Your task to perform on an android device: Open Google Maps and go to "Timeline" Image 0: 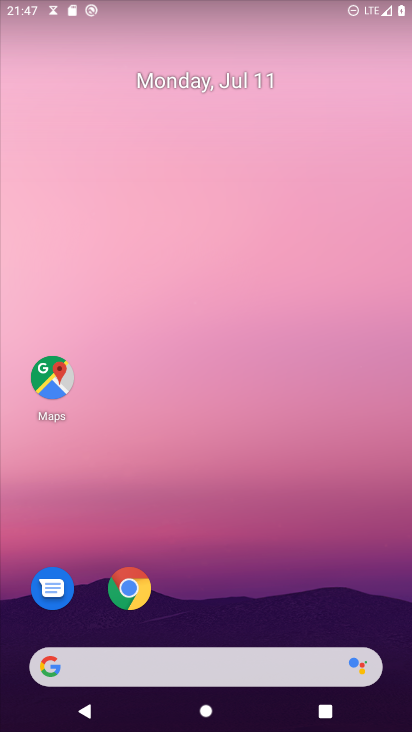
Step 0: press home button
Your task to perform on an android device: Open Google Maps and go to "Timeline" Image 1: 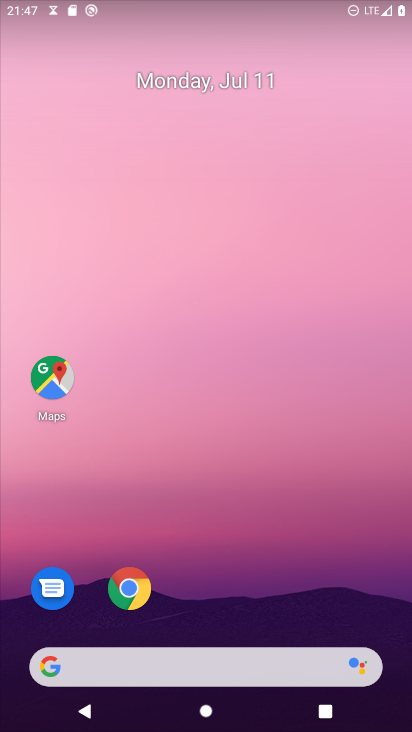
Step 1: drag from (197, 591) to (146, 111)
Your task to perform on an android device: Open Google Maps and go to "Timeline" Image 2: 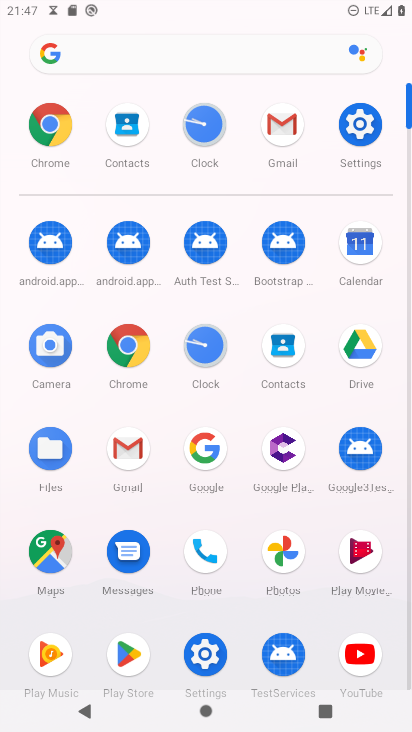
Step 2: click (57, 544)
Your task to perform on an android device: Open Google Maps and go to "Timeline" Image 3: 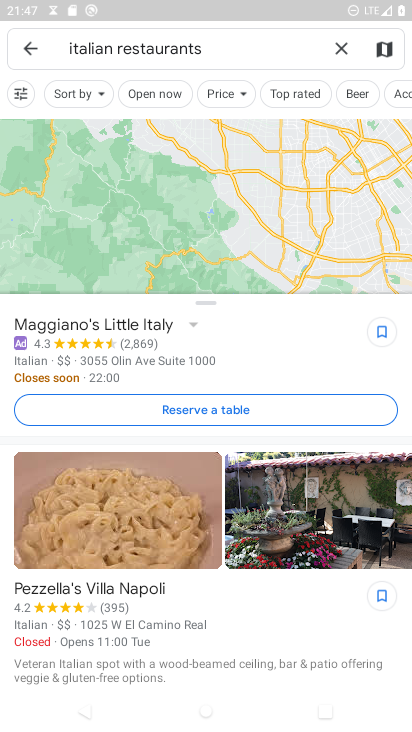
Step 3: press back button
Your task to perform on an android device: Open Google Maps and go to "Timeline" Image 4: 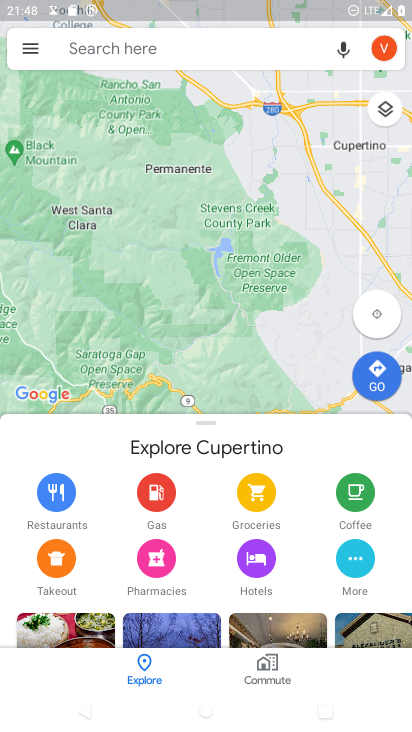
Step 4: click (37, 45)
Your task to perform on an android device: Open Google Maps and go to "Timeline" Image 5: 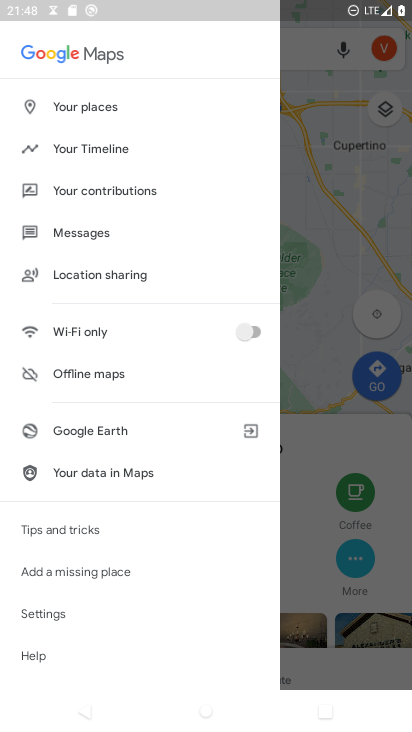
Step 5: click (101, 151)
Your task to perform on an android device: Open Google Maps and go to "Timeline" Image 6: 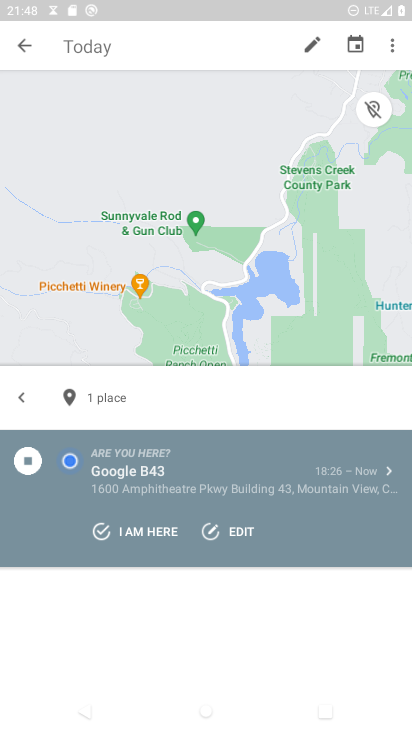
Step 6: task complete